Your task to perform on an android device: turn notification dots off Image 0: 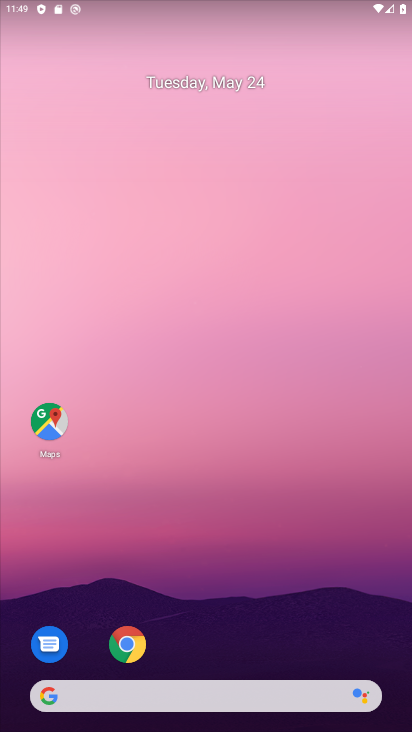
Step 0: drag from (162, 667) to (274, 152)
Your task to perform on an android device: turn notification dots off Image 1: 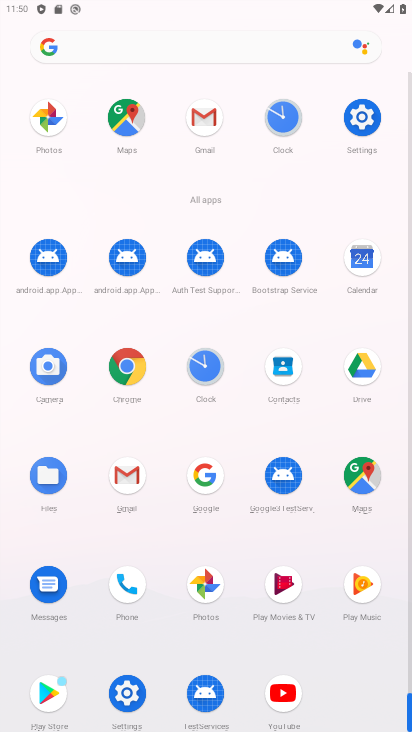
Step 1: click (125, 705)
Your task to perform on an android device: turn notification dots off Image 2: 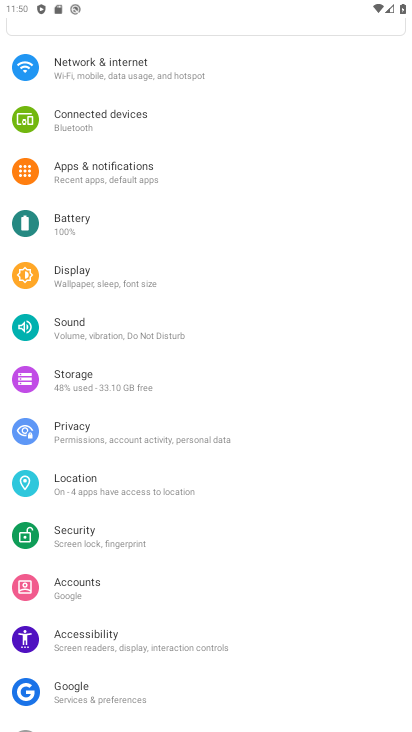
Step 2: click (178, 175)
Your task to perform on an android device: turn notification dots off Image 3: 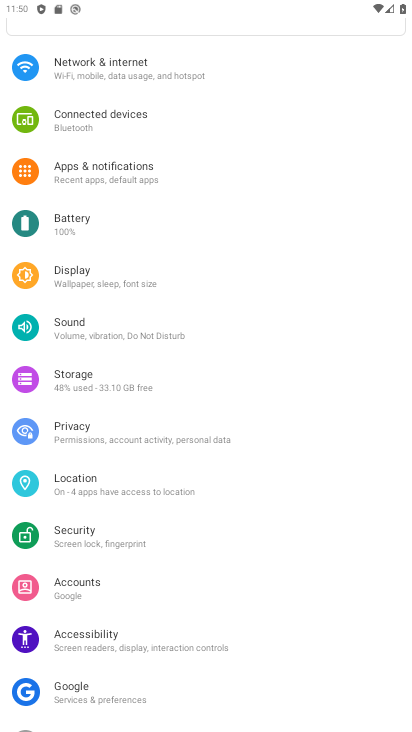
Step 3: drag from (189, 615) to (250, 298)
Your task to perform on an android device: turn notification dots off Image 4: 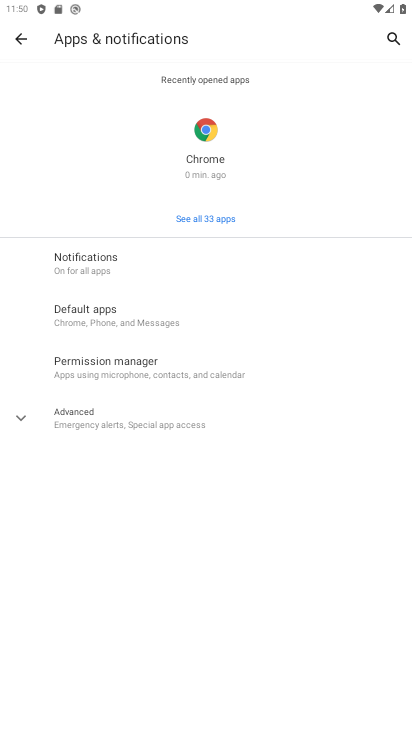
Step 4: click (127, 266)
Your task to perform on an android device: turn notification dots off Image 5: 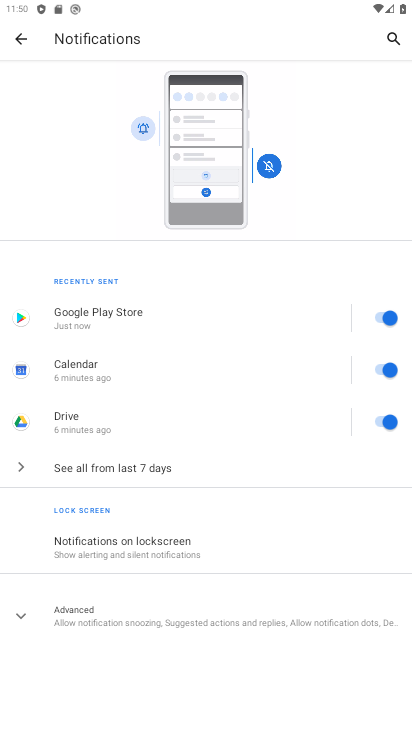
Step 5: click (186, 622)
Your task to perform on an android device: turn notification dots off Image 6: 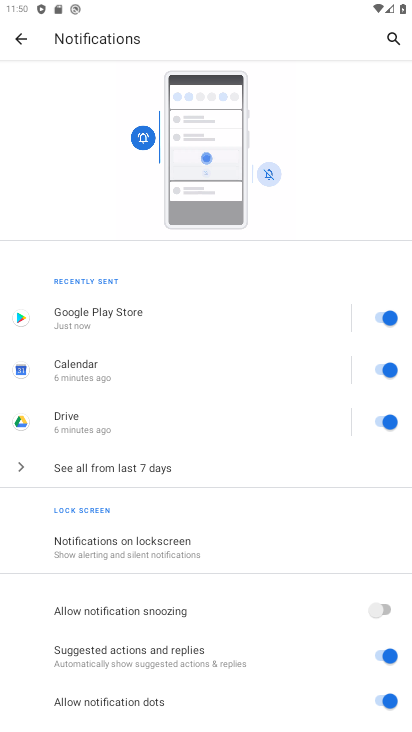
Step 6: drag from (119, 662) to (200, 344)
Your task to perform on an android device: turn notification dots off Image 7: 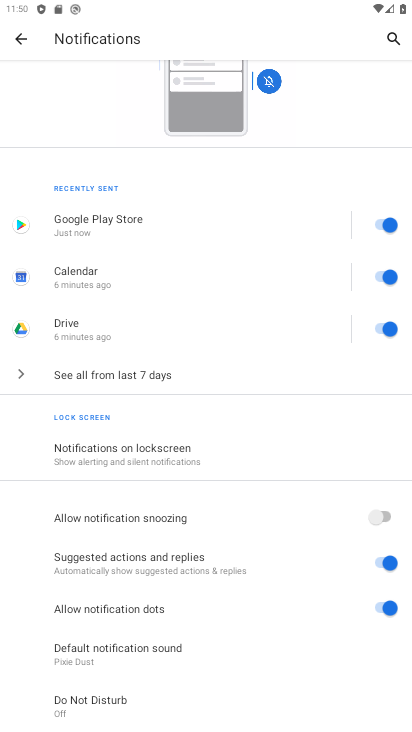
Step 7: click (369, 598)
Your task to perform on an android device: turn notification dots off Image 8: 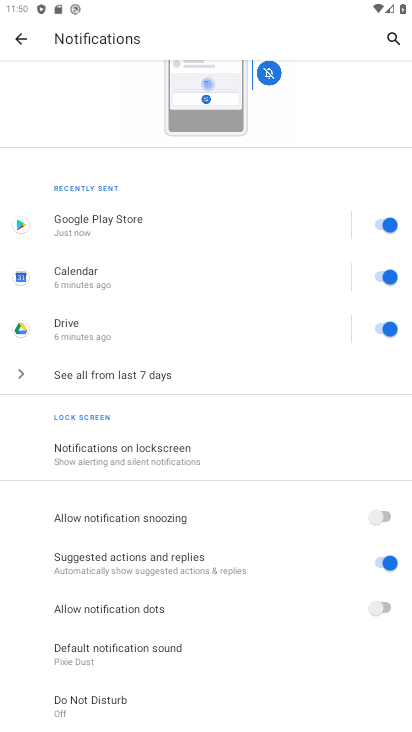
Step 8: task complete